Your task to perform on an android device: change text size in settings app Image 0: 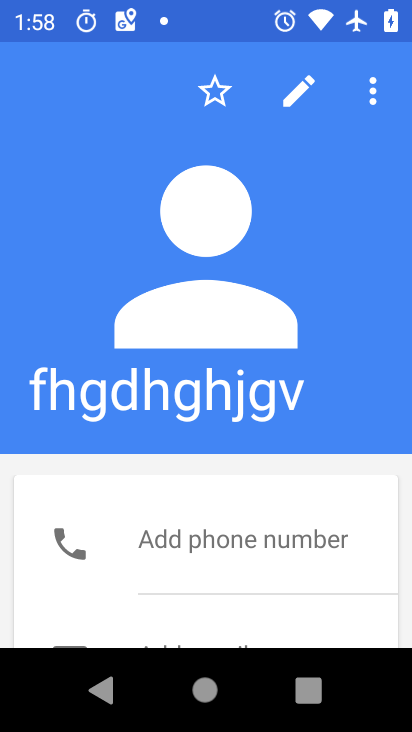
Step 0: press home button
Your task to perform on an android device: change text size in settings app Image 1: 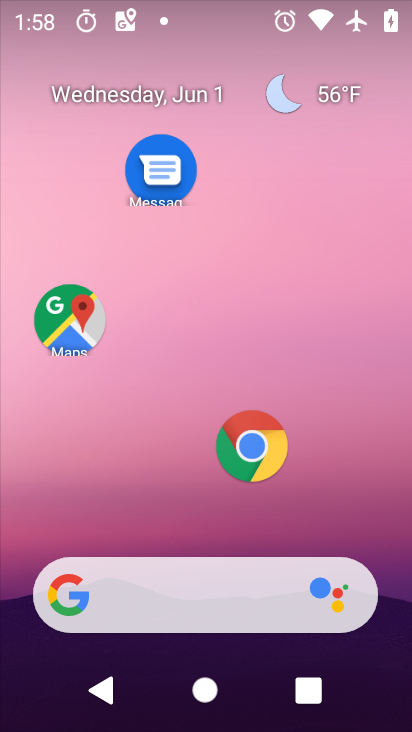
Step 1: drag from (2, 469) to (260, 100)
Your task to perform on an android device: change text size in settings app Image 2: 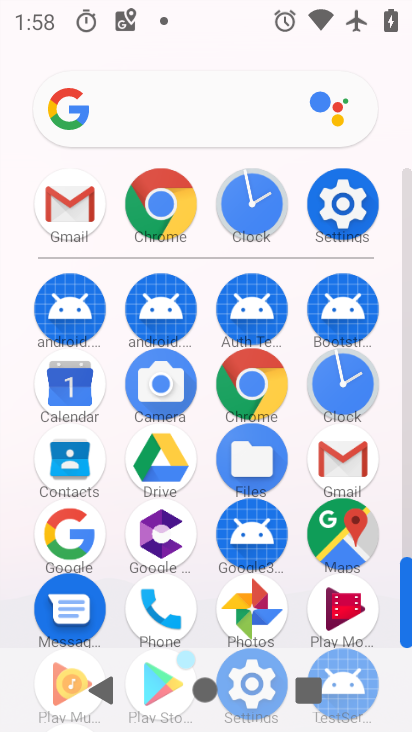
Step 2: click (354, 201)
Your task to perform on an android device: change text size in settings app Image 3: 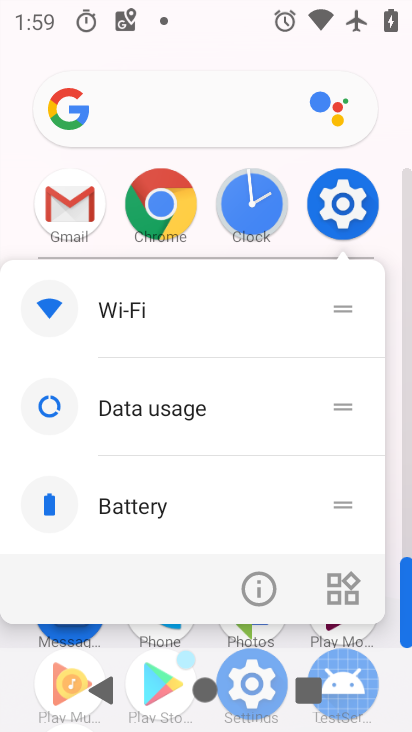
Step 3: press back button
Your task to perform on an android device: change text size in settings app Image 4: 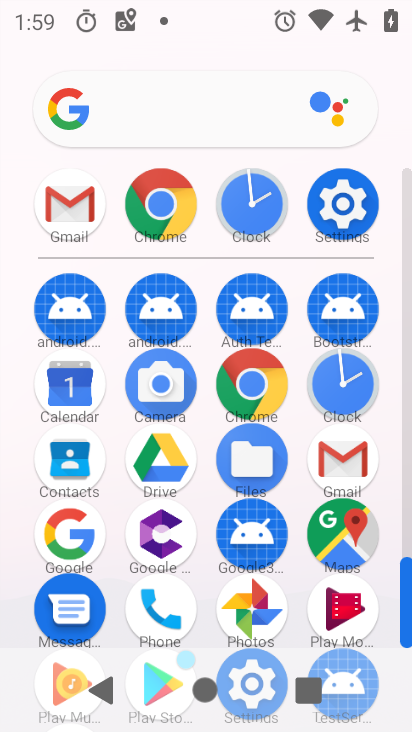
Step 4: drag from (215, 255) to (196, 98)
Your task to perform on an android device: change text size in settings app Image 5: 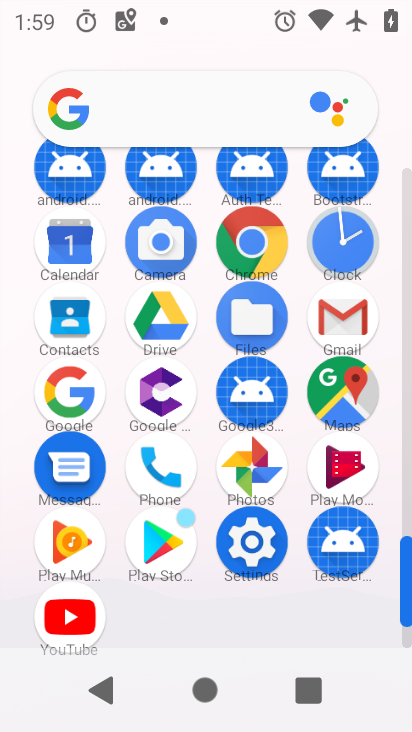
Step 5: click (254, 554)
Your task to perform on an android device: change text size in settings app Image 6: 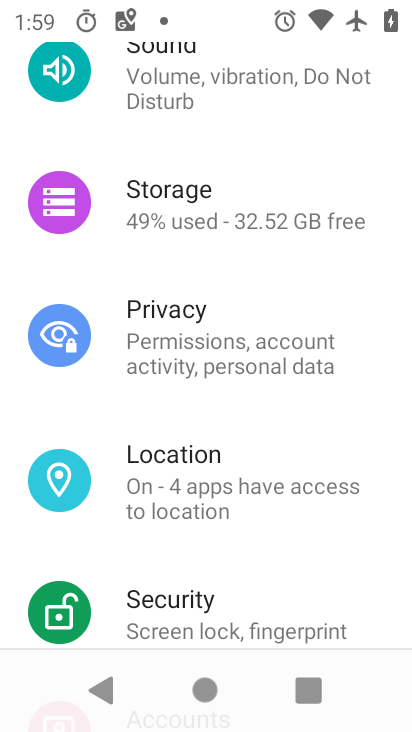
Step 6: drag from (242, 187) to (252, 582)
Your task to perform on an android device: change text size in settings app Image 7: 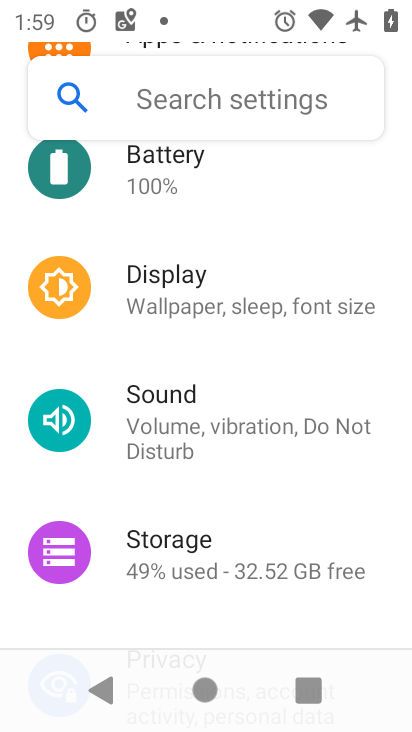
Step 7: click (253, 298)
Your task to perform on an android device: change text size in settings app Image 8: 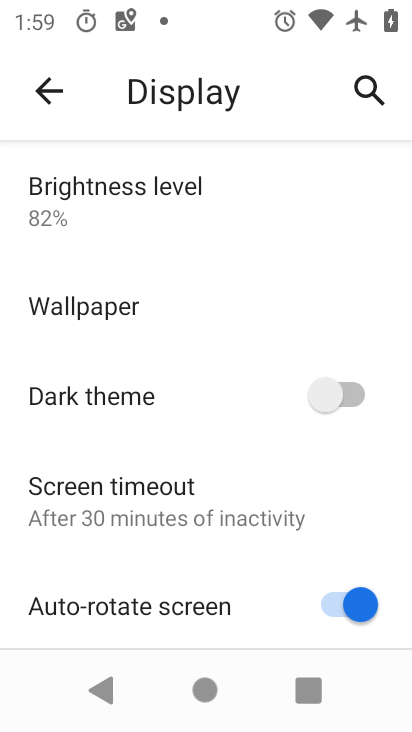
Step 8: drag from (197, 489) to (176, 115)
Your task to perform on an android device: change text size in settings app Image 9: 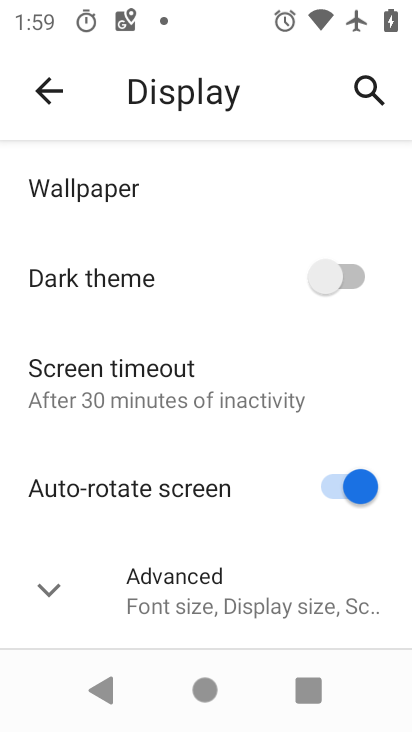
Step 9: click (183, 585)
Your task to perform on an android device: change text size in settings app Image 10: 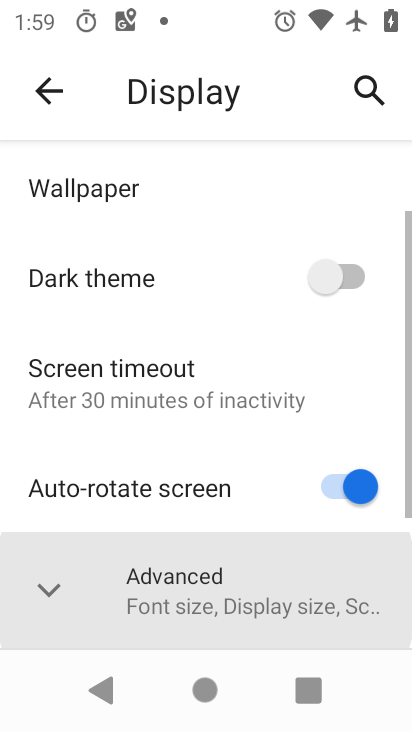
Step 10: drag from (176, 497) to (144, 174)
Your task to perform on an android device: change text size in settings app Image 11: 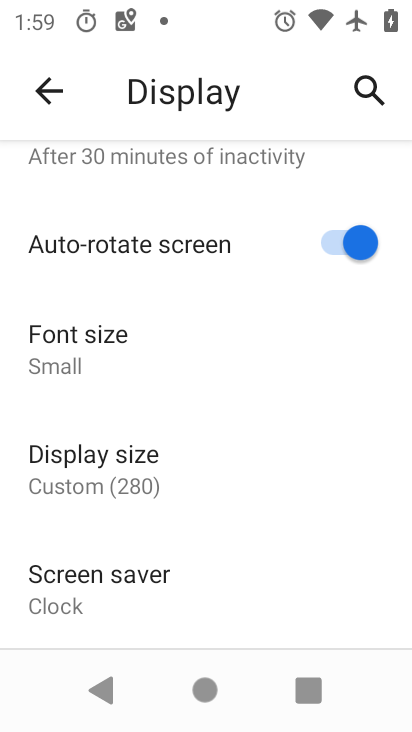
Step 11: click (148, 360)
Your task to perform on an android device: change text size in settings app Image 12: 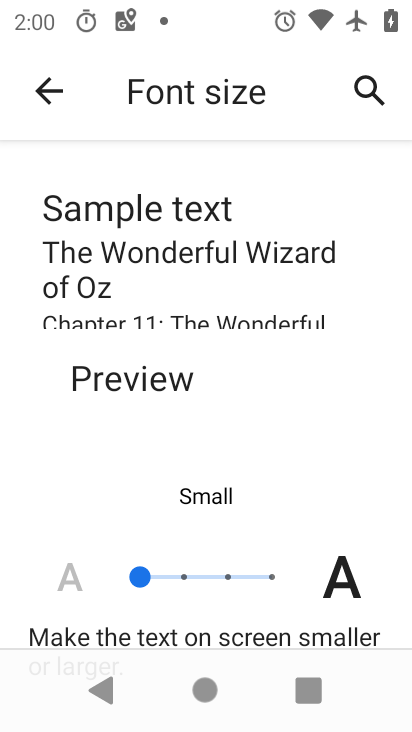
Step 12: click (177, 576)
Your task to perform on an android device: change text size in settings app Image 13: 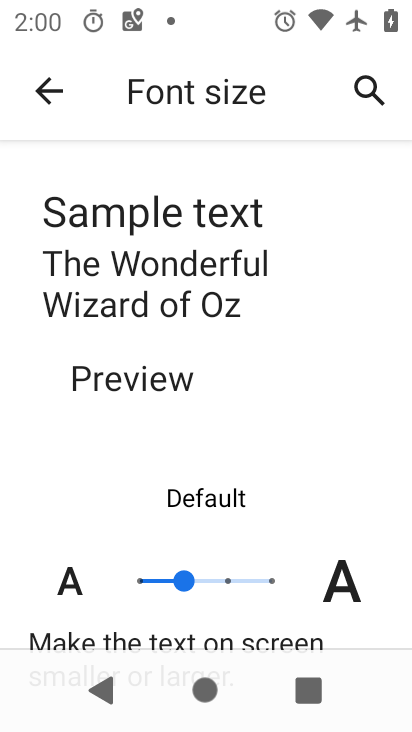
Step 13: task complete